Your task to perform on an android device: Open calendar and show me the third week of next month Image 0: 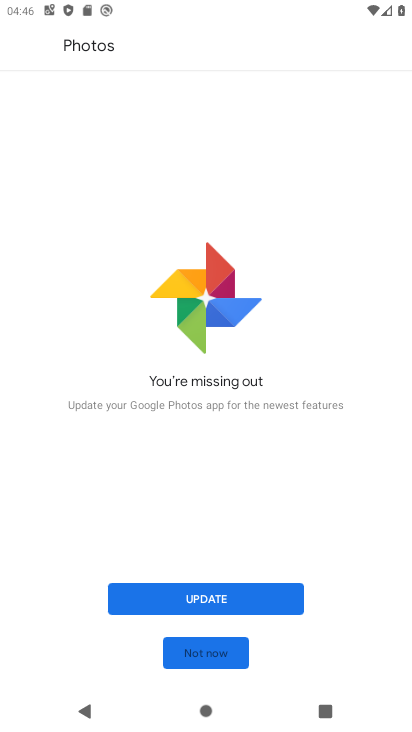
Step 0: press home button
Your task to perform on an android device: Open calendar and show me the third week of next month Image 1: 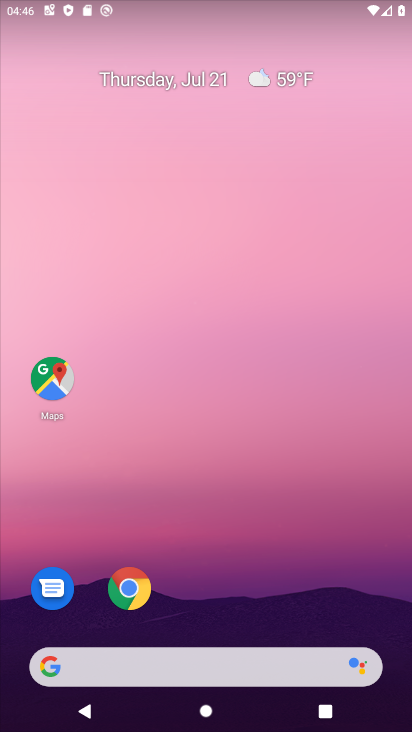
Step 1: drag from (209, 601) to (223, 191)
Your task to perform on an android device: Open calendar and show me the third week of next month Image 2: 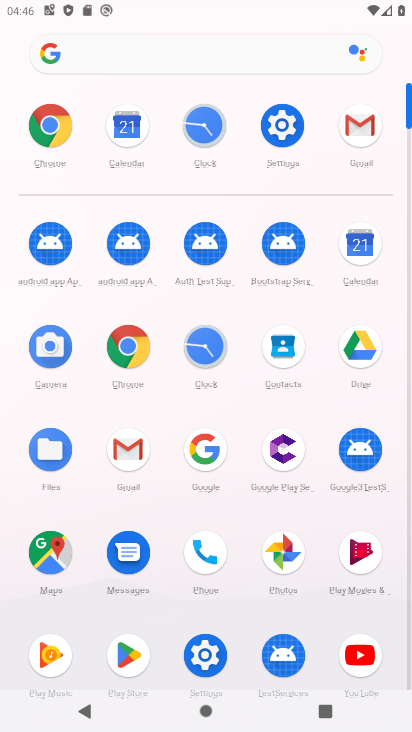
Step 2: click (357, 241)
Your task to perform on an android device: Open calendar and show me the third week of next month Image 3: 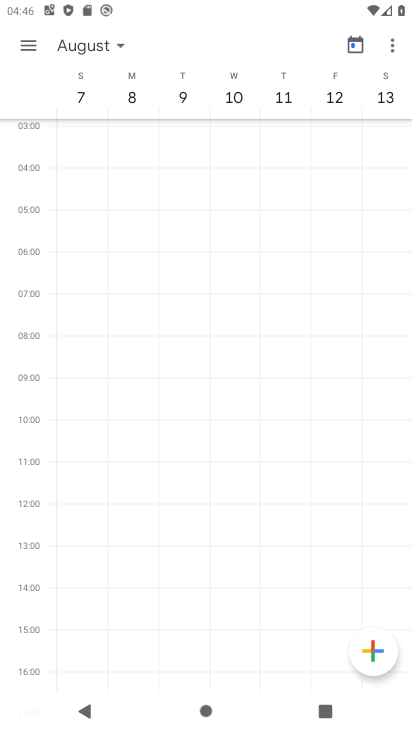
Step 3: task complete